Your task to perform on an android device: Search for seafood restaurants on Google Maps Image 0: 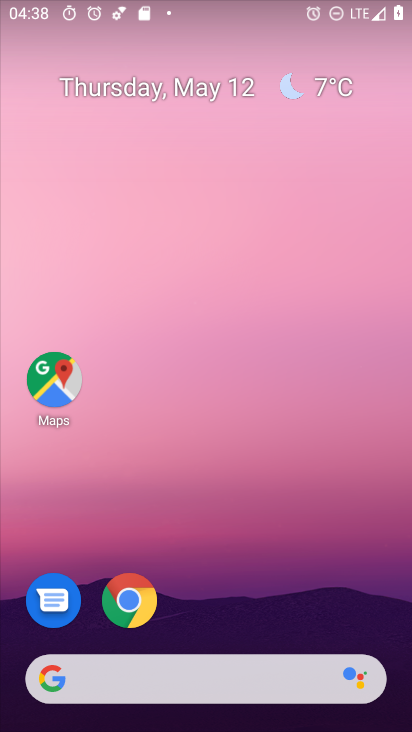
Step 0: drag from (210, 726) to (204, 242)
Your task to perform on an android device: Search for seafood restaurants on Google Maps Image 1: 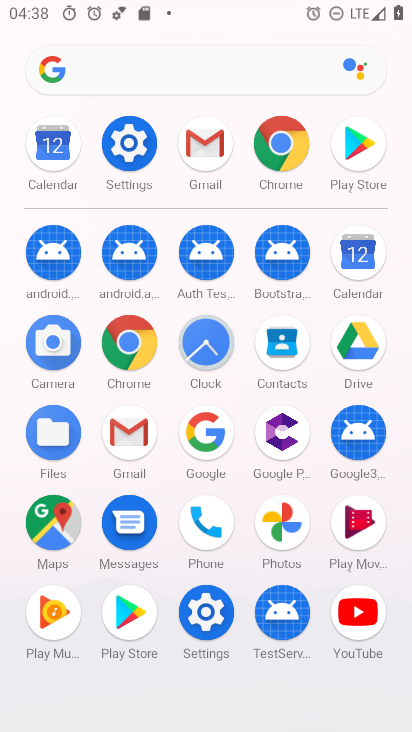
Step 1: click (48, 516)
Your task to perform on an android device: Search for seafood restaurants on Google Maps Image 2: 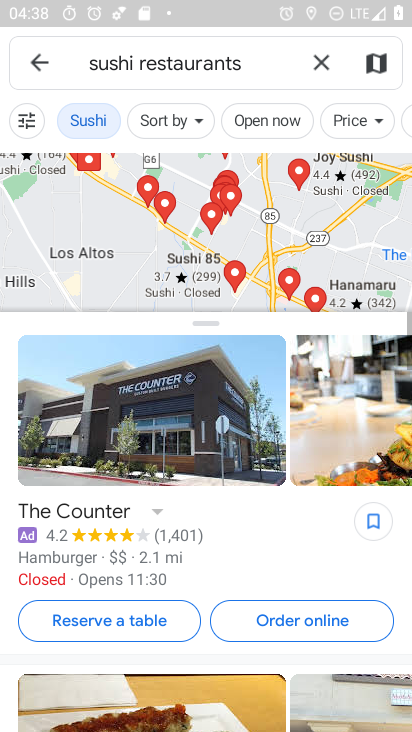
Step 2: click (42, 60)
Your task to perform on an android device: Search for seafood restaurants on Google Maps Image 3: 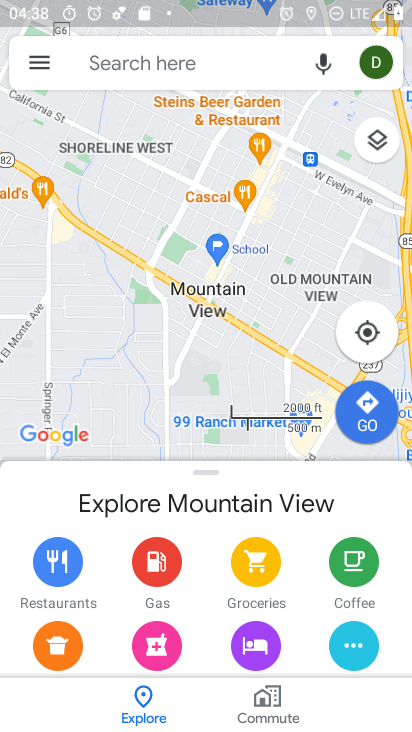
Step 3: click (191, 57)
Your task to perform on an android device: Search for seafood restaurants on Google Maps Image 4: 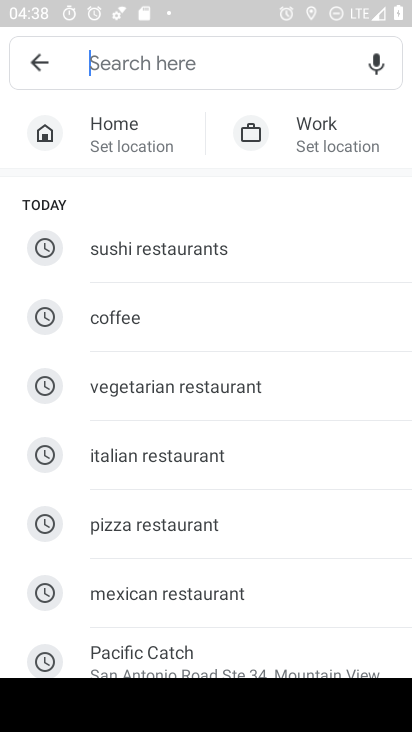
Step 4: type "seafood restaurants"
Your task to perform on an android device: Search for seafood restaurants on Google Maps Image 5: 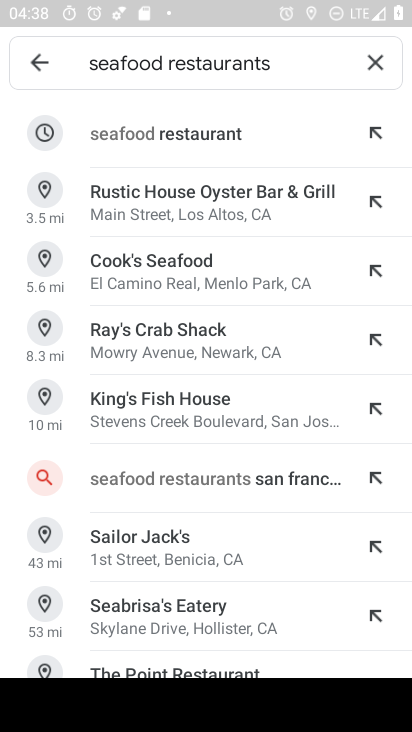
Step 5: click (145, 135)
Your task to perform on an android device: Search for seafood restaurants on Google Maps Image 6: 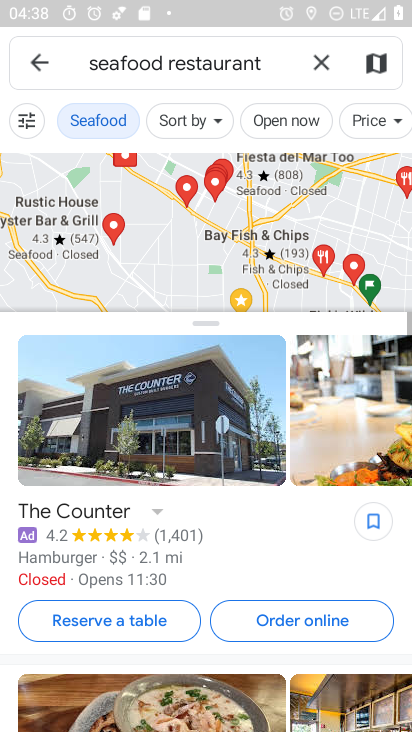
Step 6: task complete